Your task to perform on an android device: Check the weather Image 0: 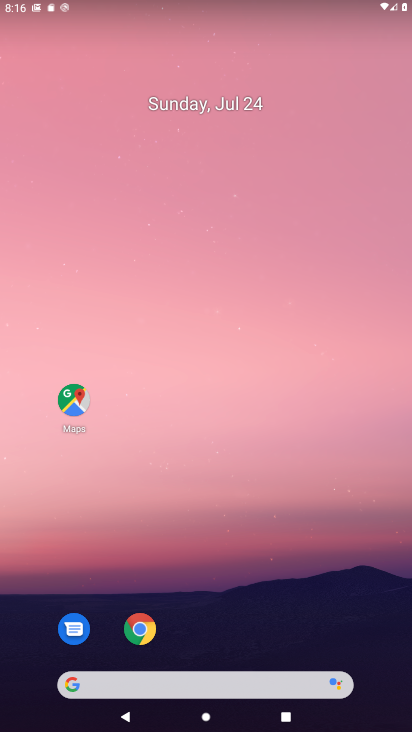
Step 0: click (202, 673)
Your task to perform on an android device: Check the weather Image 1: 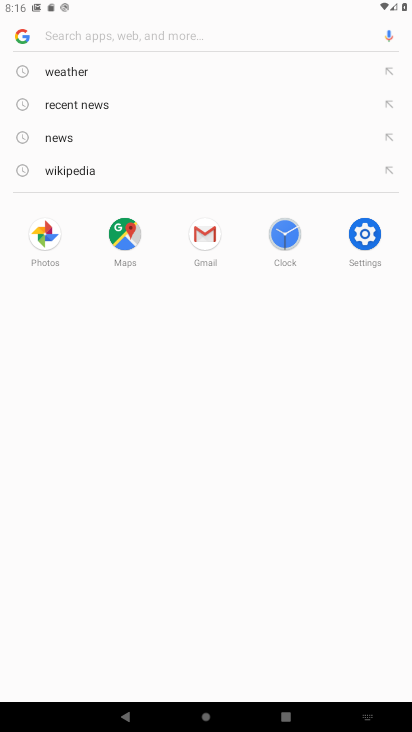
Step 1: click (72, 64)
Your task to perform on an android device: Check the weather Image 2: 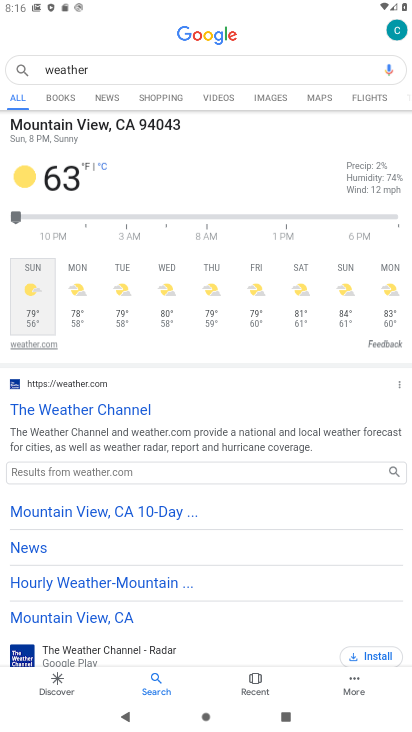
Step 2: task complete